Your task to perform on an android device: Open network settings Image 0: 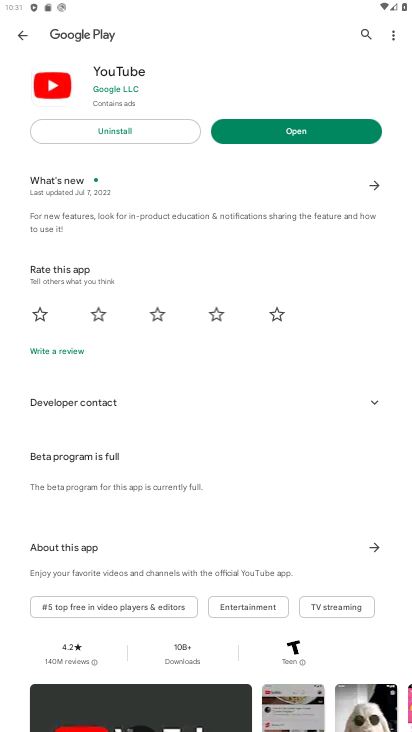
Step 0: press home button
Your task to perform on an android device: Open network settings Image 1: 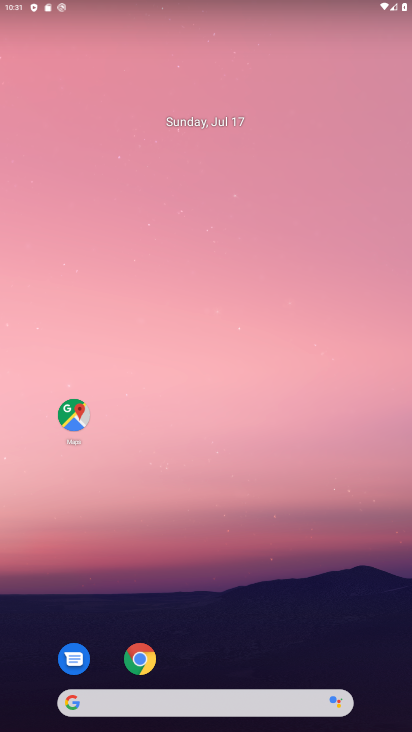
Step 1: drag from (271, 604) to (249, 44)
Your task to perform on an android device: Open network settings Image 2: 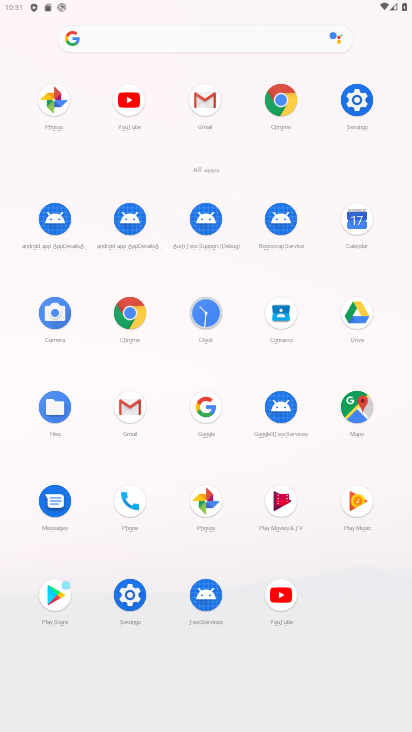
Step 2: click (359, 109)
Your task to perform on an android device: Open network settings Image 3: 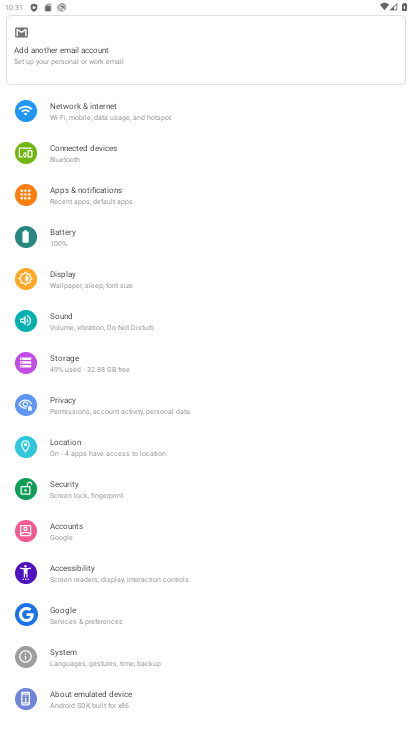
Step 3: click (124, 115)
Your task to perform on an android device: Open network settings Image 4: 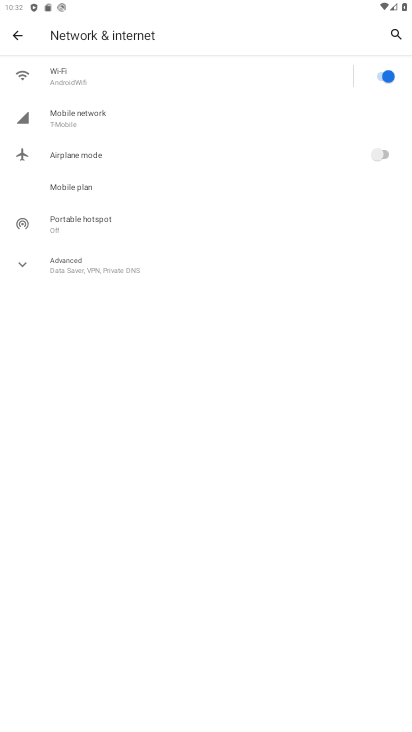
Step 4: click (186, 84)
Your task to perform on an android device: Open network settings Image 5: 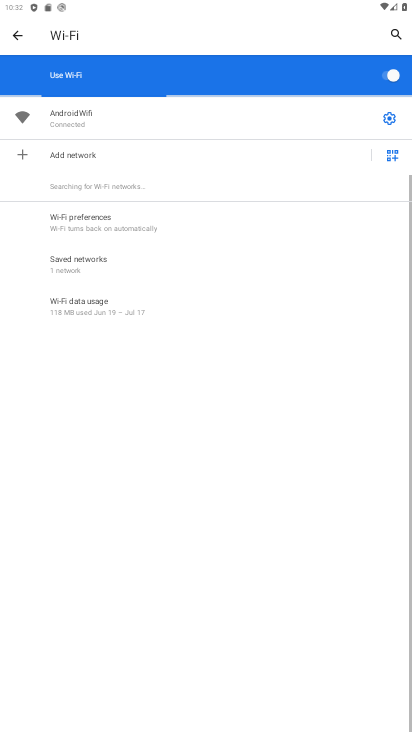
Step 5: click (390, 116)
Your task to perform on an android device: Open network settings Image 6: 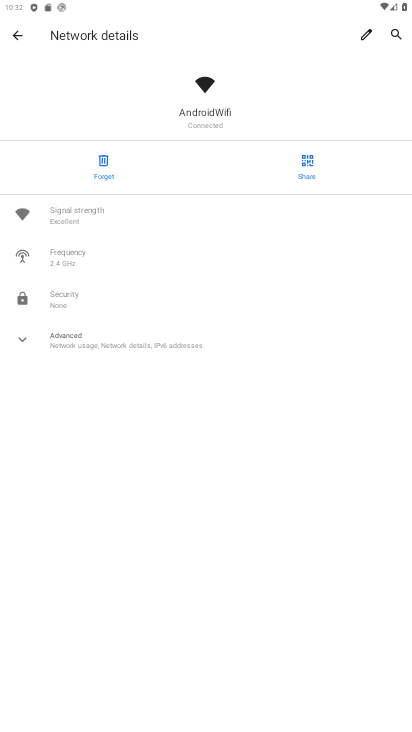
Step 6: task complete